Your task to perform on an android device: toggle airplane mode Image 0: 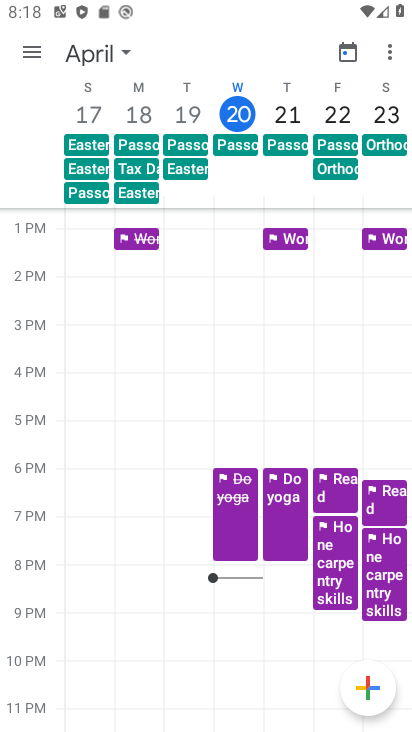
Step 0: press home button
Your task to perform on an android device: toggle airplane mode Image 1: 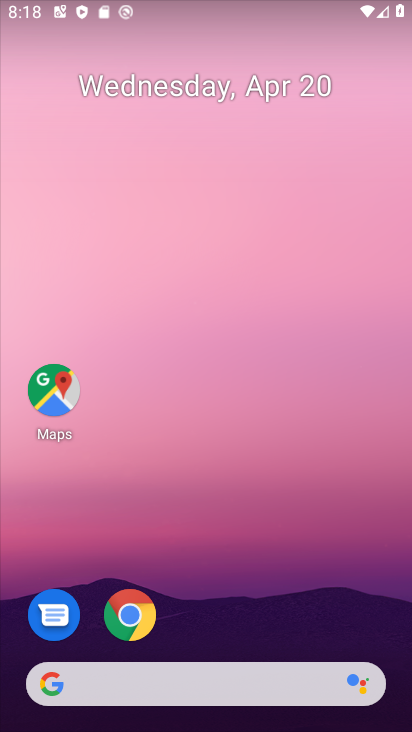
Step 1: drag from (211, 634) to (301, 58)
Your task to perform on an android device: toggle airplane mode Image 2: 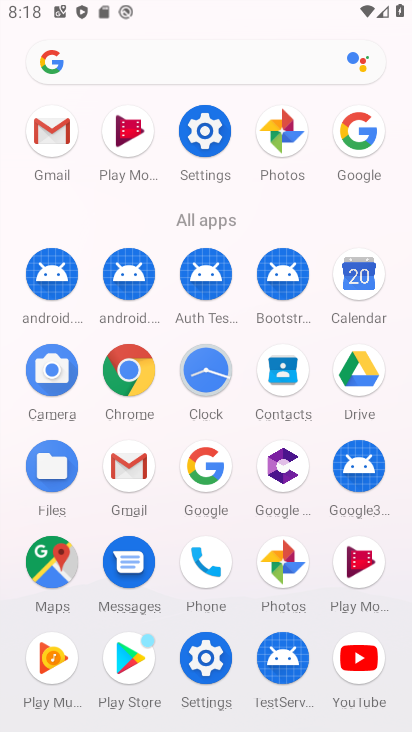
Step 2: click (207, 132)
Your task to perform on an android device: toggle airplane mode Image 3: 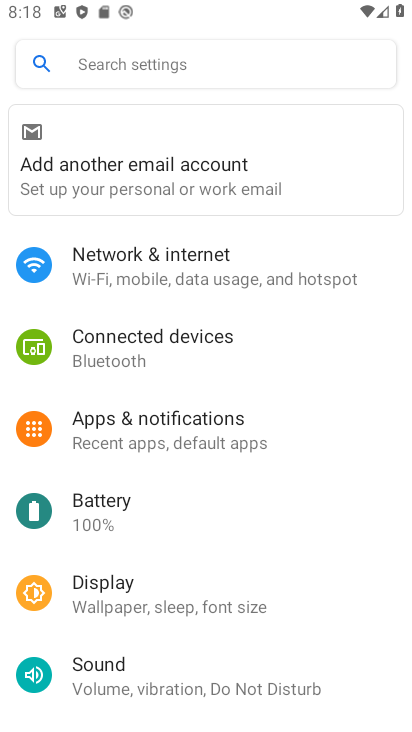
Step 3: click (201, 265)
Your task to perform on an android device: toggle airplane mode Image 4: 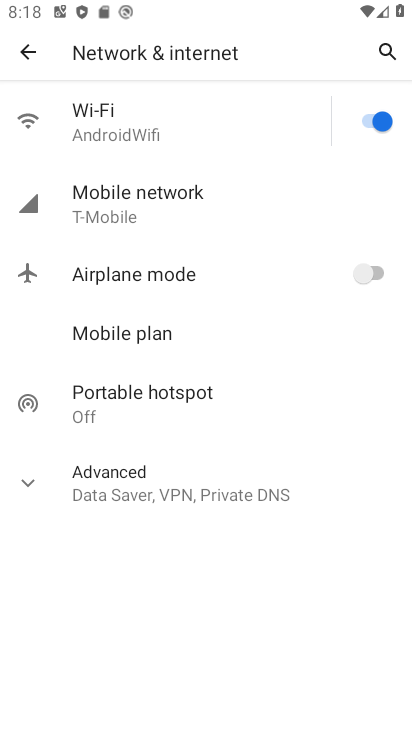
Step 4: click (367, 274)
Your task to perform on an android device: toggle airplane mode Image 5: 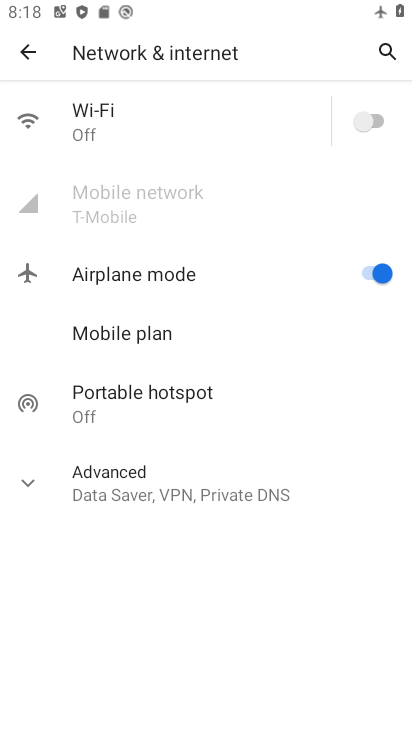
Step 5: task complete